Your task to perform on an android device: add a label to a message in the gmail app Image 0: 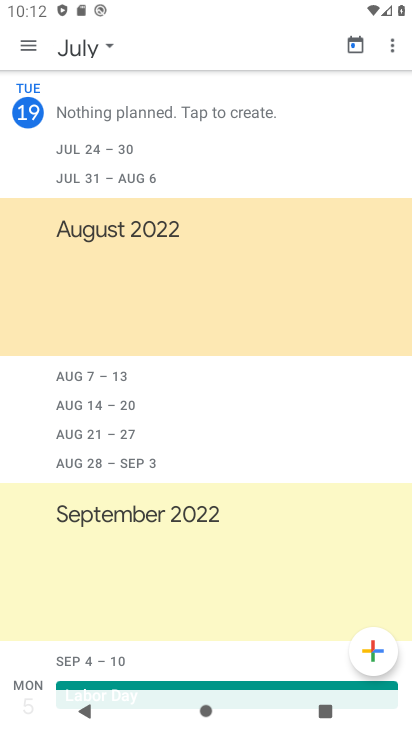
Step 0: press home button
Your task to perform on an android device: add a label to a message in the gmail app Image 1: 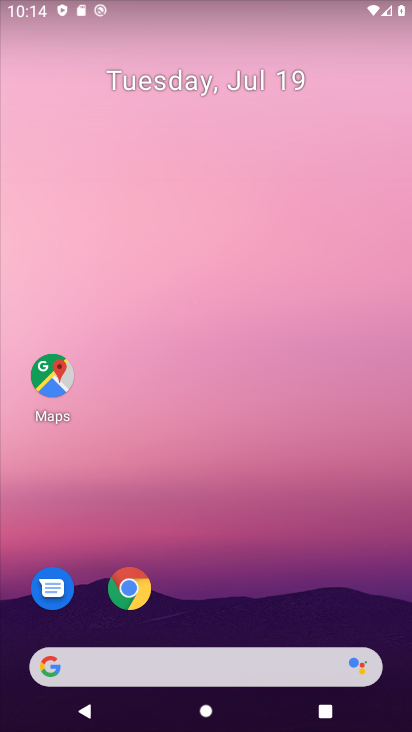
Step 1: drag from (249, 244) to (235, 17)
Your task to perform on an android device: add a label to a message in the gmail app Image 2: 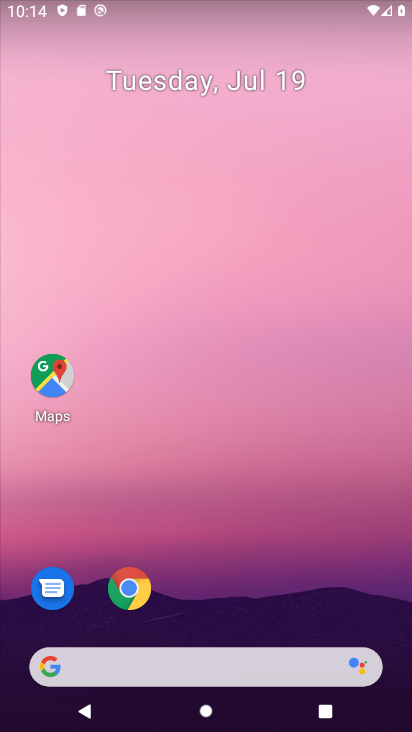
Step 2: drag from (361, 605) to (216, 10)
Your task to perform on an android device: add a label to a message in the gmail app Image 3: 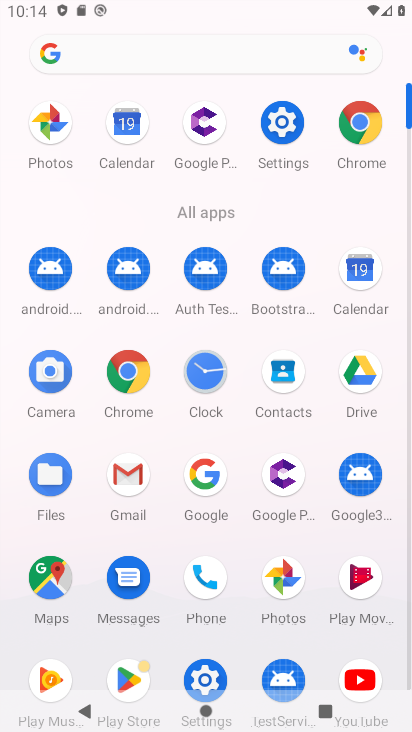
Step 3: click (134, 491)
Your task to perform on an android device: add a label to a message in the gmail app Image 4: 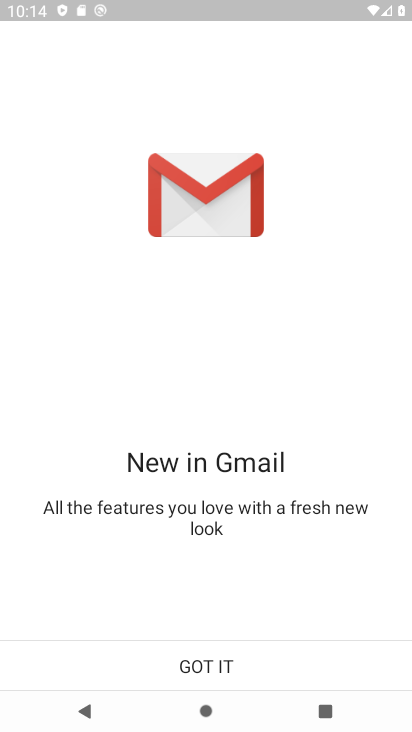
Step 4: click (212, 654)
Your task to perform on an android device: add a label to a message in the gmail app Image 5: 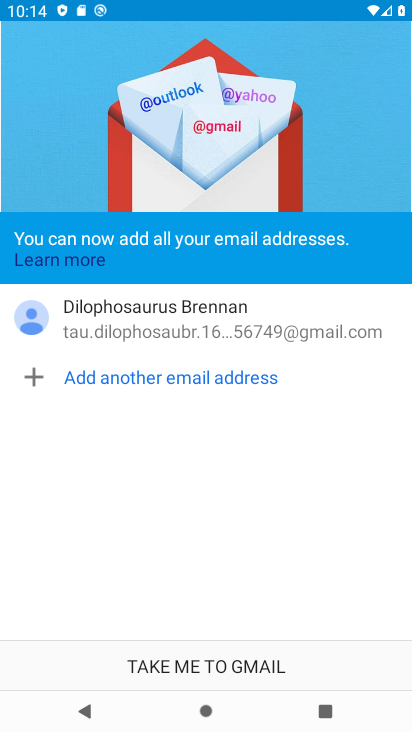
Step 5: click (201, 666)
Your task to perform on an android device: add a label to a message in the gmail app Image 6: 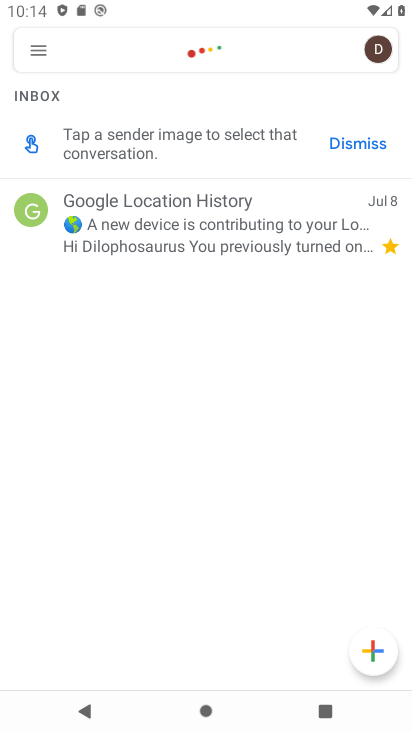
Step 6: task complete